Your task to perform on an android device: turn on wifi Image 0: 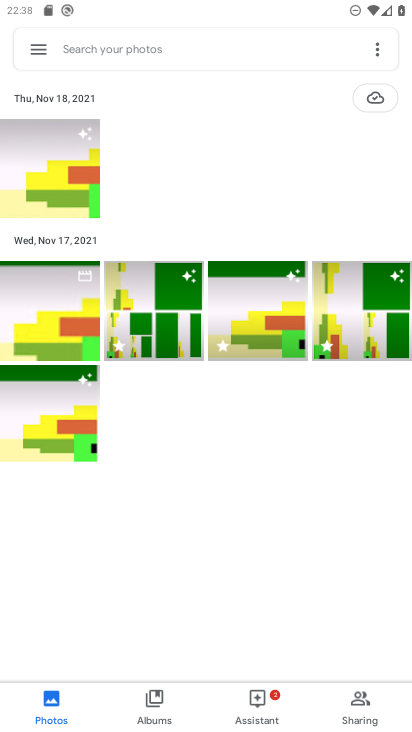
Step 0: press home button
Your task to perform on an android device: turn on wifi Image 1: 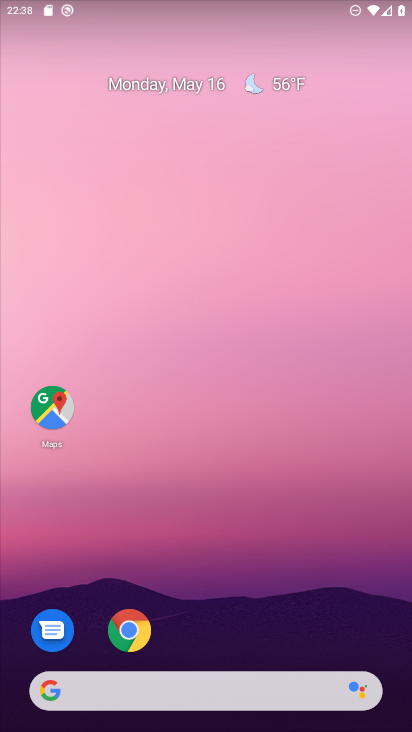
Step 1: drag from (233, 618) to (236, 0)
Your task to perform on an android device: turn on wifi Image 2: 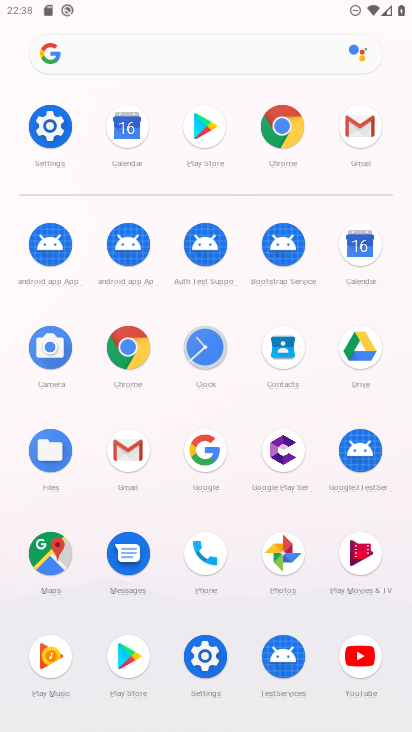
Step 2: click (44, 138)
Your task to perform on an android device: turn on wifi Image 3: 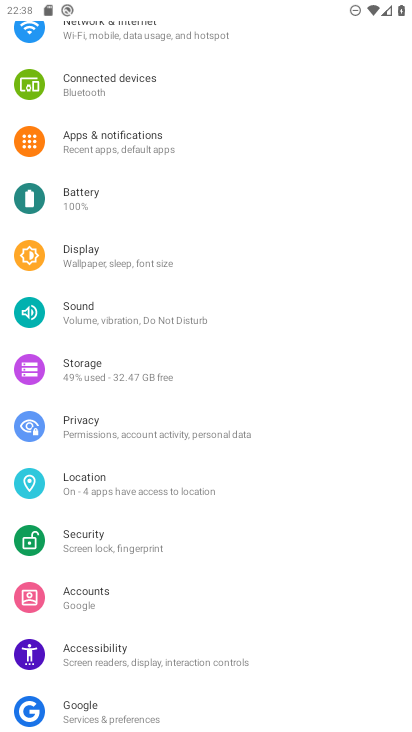
Step 3: drag from (207, 124) to (196, 425)
Your task to perform on an android device: turn on wifi Image 4: 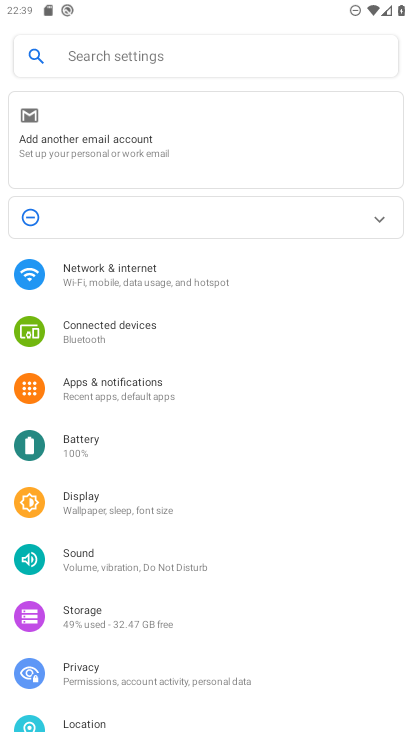
Step 4: click (168, 278)
Your task to perform on an android device: turn on wifi Image 5: 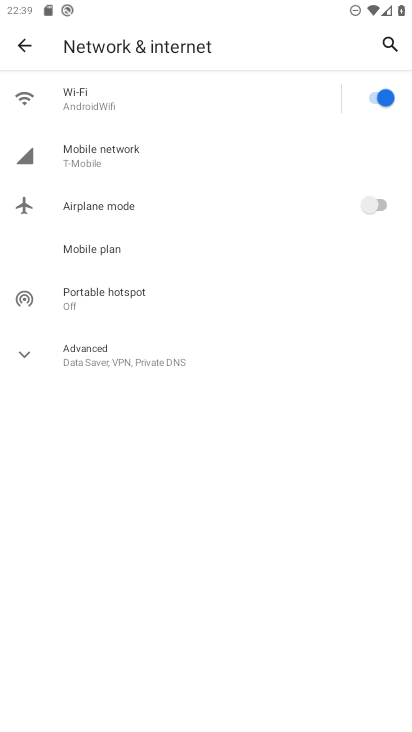
Step 5: task complete